Your task to perform on an android device: turn on the 12-hour format for clock Image 0: 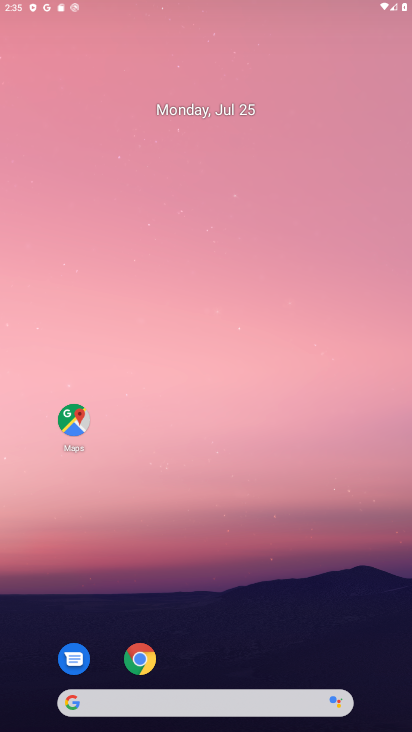
Step 0: drag from (230, 682) to (249, 174)
Your task to perform on an android device: turn on the 12-hour format for clock Image 1: 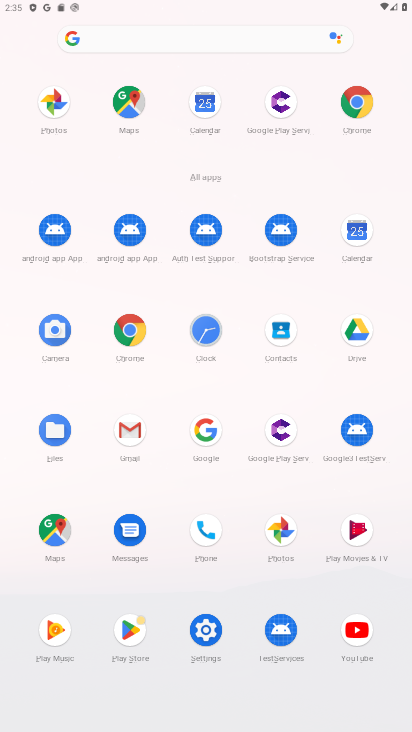
Step 1: click (210, 335)
Your task to perform on an android device: turn on the 12-hour format for clock Image 2: 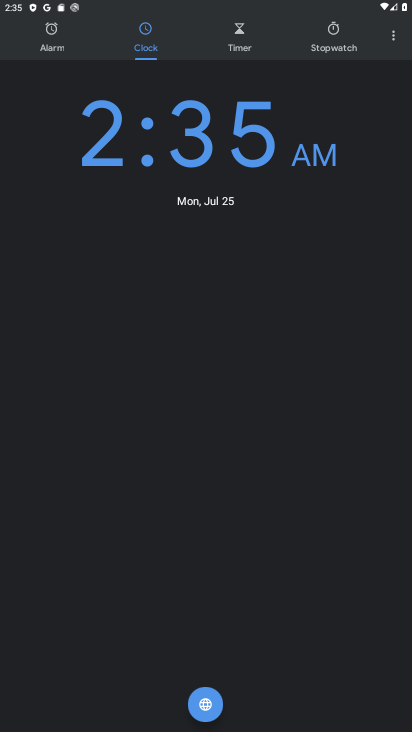
Step 2: click (390, 43)
Your task to perform on an android device: turn on the 12-hour format for clock Image 3: 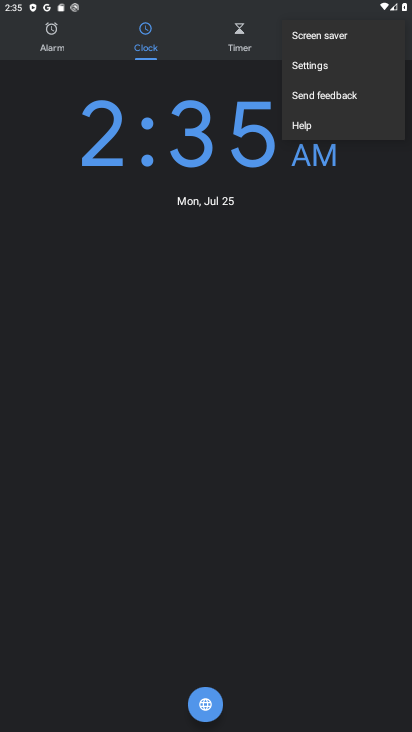
Step 3: click (299, 67)
Your task to perform on an android device: turn on the 12-hour format for clock Image 4: 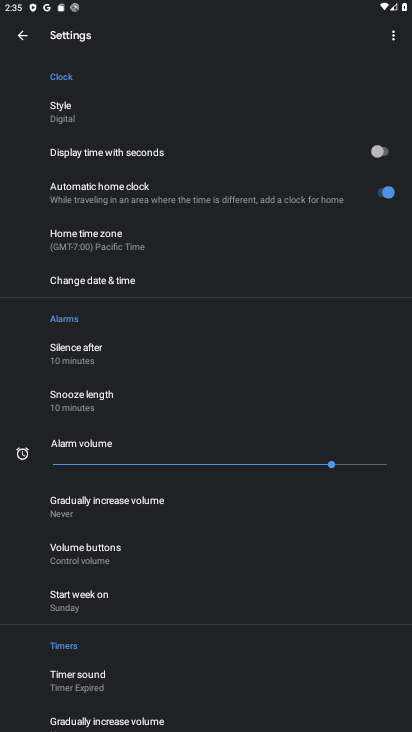
Step 4: click (105, 282)
Your task to perform on an android device: turn on the 12-hour format for clock Image 5: 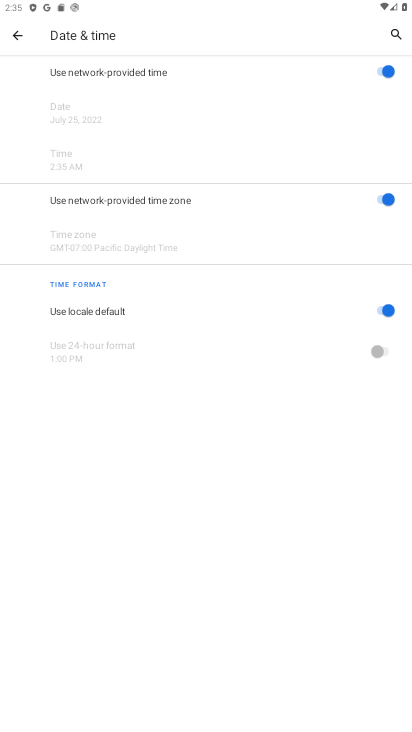
Step 5: task complete